Your task to perform on an android device: Go to Google maps Image 0: 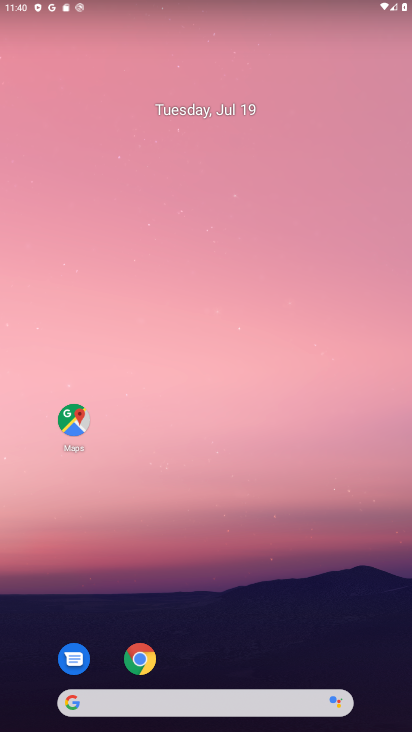
Step 0: drag from (328, 584) to (298, 128)
Your task to perform on an android device: Go to Google maps Image 1: 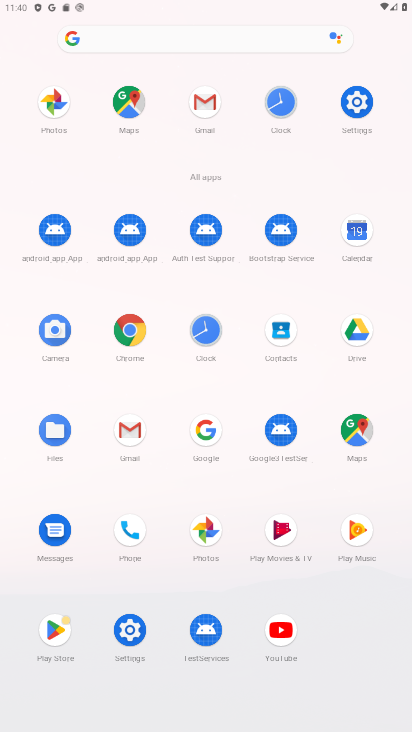
Step 1: click (136, 105)
Your task to perform on an android device: Go to Google maps Image 2: 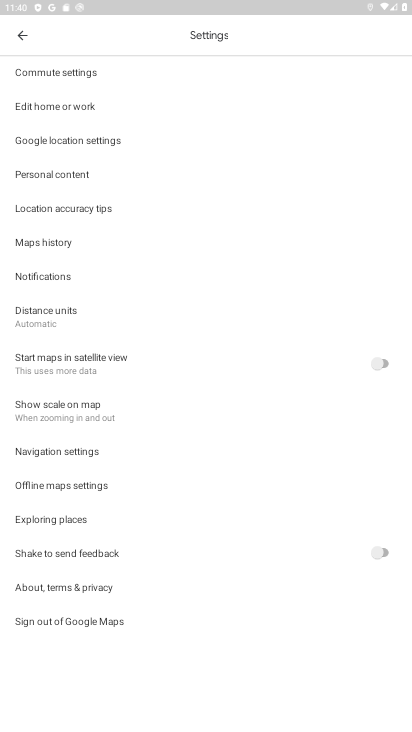
Step 2: click (26, 35)
Your task to perform on an android device: Go to Google maps Image 3: 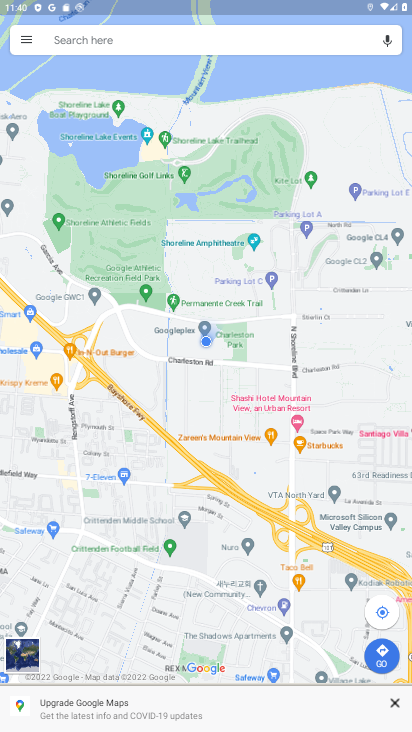
Step 3: task complete